Your task to perform on an android device: Open the Play Movies app and select the watchlist tab. Image 0: 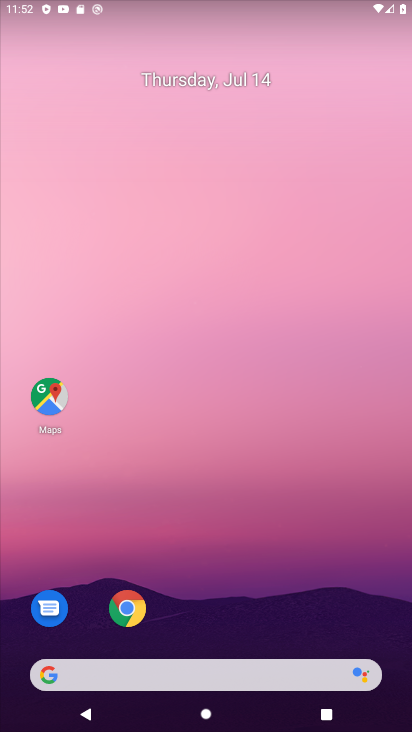
Step 0: drag from (221, 634) to (266, 89)
Your task to perform on an android device: Open the Play Movies app and select the watchlist tab. Image 1: 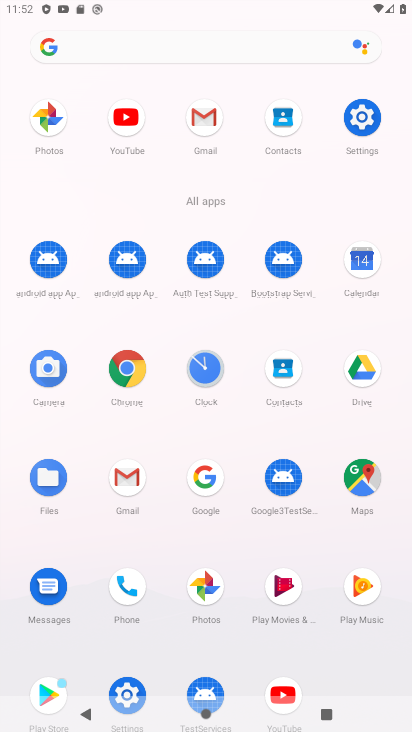
Step 1: click (280, 588)
Your task to perform on an android device: Open the Play Movies app and select the watchlist tab. Image 2: 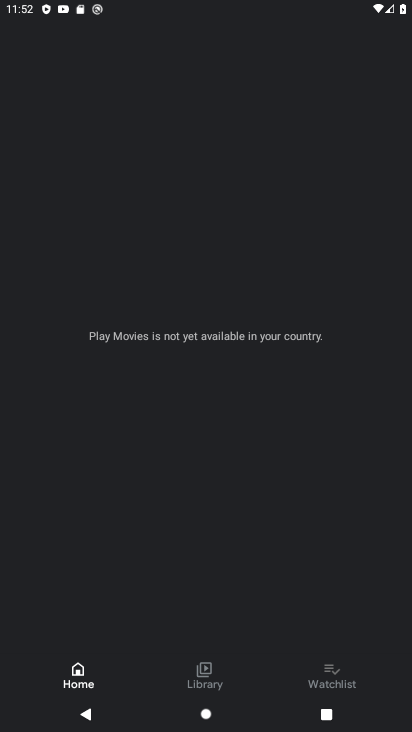
Step 2: click (319, 680)
Your task to perform on an android device: Open the Play Movies app and select the watchlist tab. Image 3: 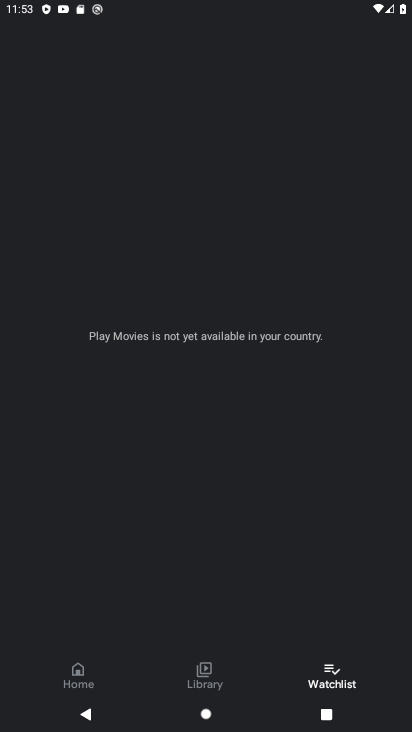
Step 3: task complete